Your task to perform on an android device: make emails show in primary in the gmail app Image 0: 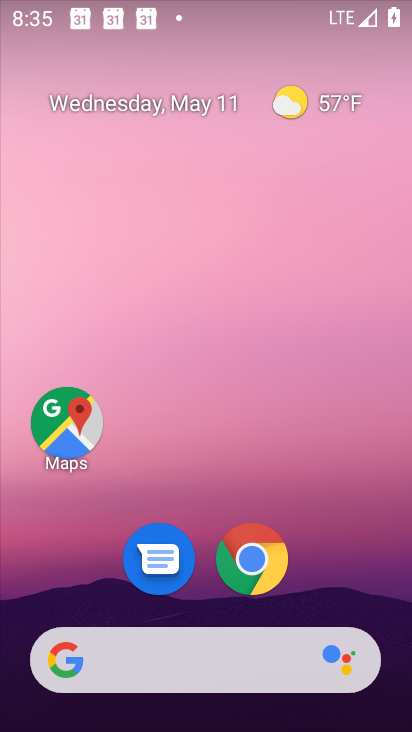
Step 0: drag from (365, 593) to (350, 374)
Your task to perform on an android device: make emails show in primary in the gmail app Image 1: 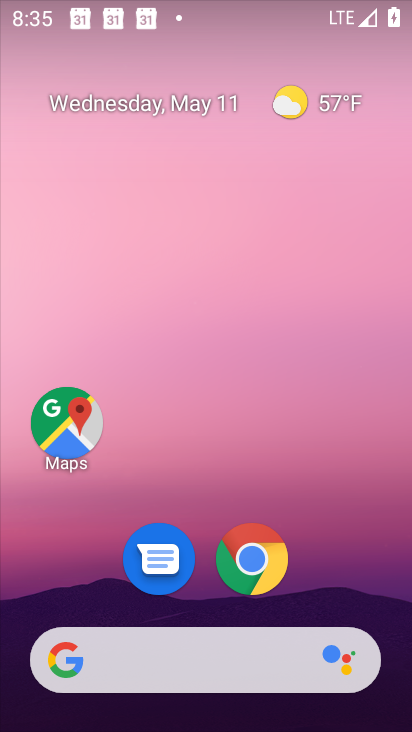
Step 1: drag from (338, 538) to (338, 36)
Your task to perform on an android device: make emails show in primary in the gmail app Image 2: 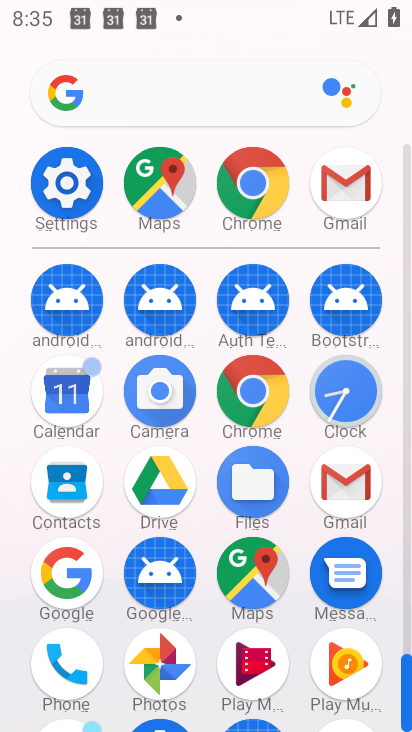
Step 2: click (360, 489)
Your task to perform on an android device: make emails show in primary in the gmail app Image 3: 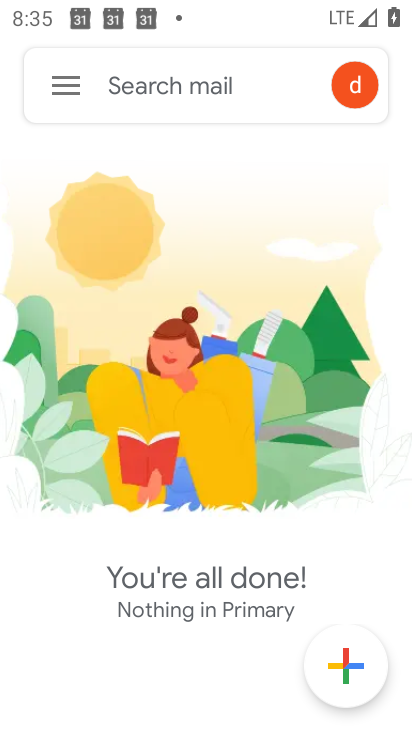
Step 3: task complete